Your task to perform on an android device: Open Google Chrome and click the shortcut for Amazon.com Image 0: 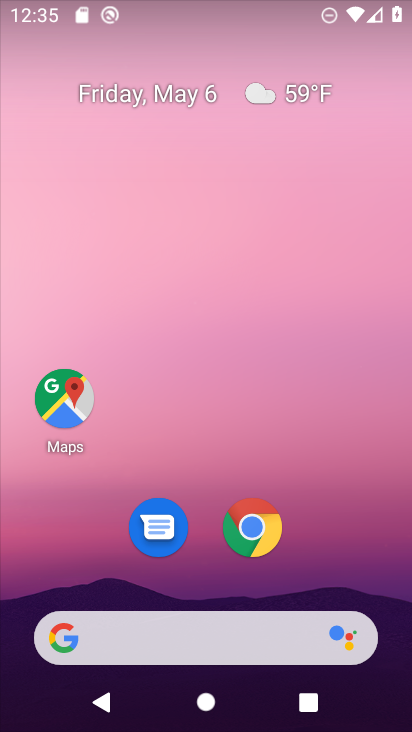
Step 0: click (250, 526)
Your task to perform on an android device: Open Google Chrome and click the shortcut for Amazon.com Image 1: 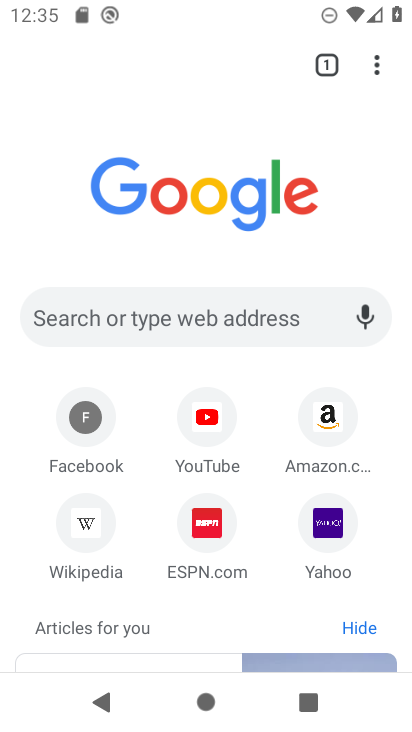
Step 1: click (332, 421)
Your task to perform on an android device: Open Google Chrome and click the shortcut for Amazon.com Image 2: 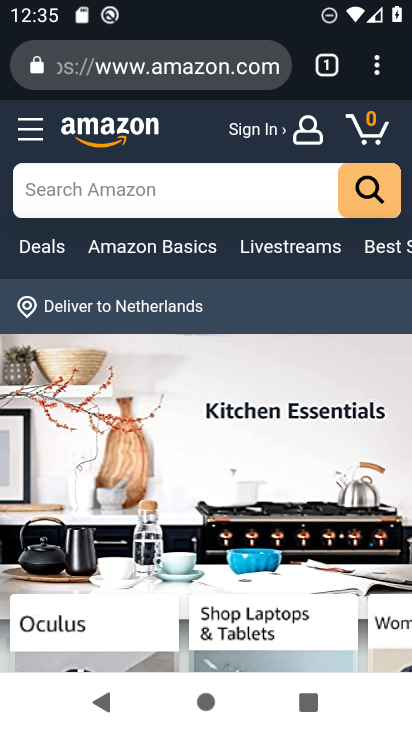
Step 2: task complete